Your task to perform on an android device: Open Yahoo.com Image 0: 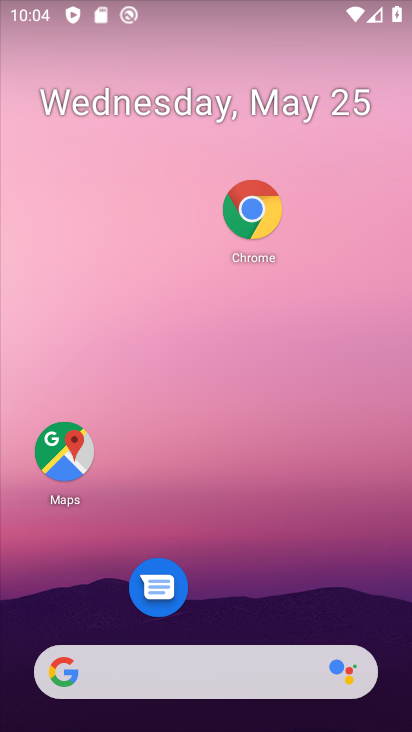
Step 0: click (272, 219)
Your task to perform on an android device: Open Yahoo.com Image 1: 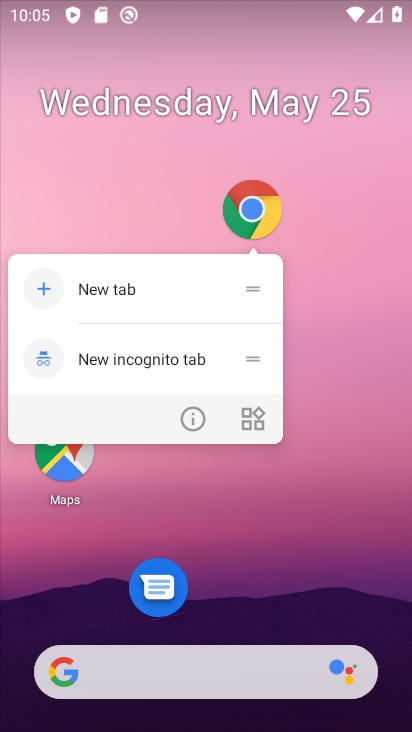
Step 1: click (265, 229)
Your task to perform on an android device: Open Yahoo.com Image 2: 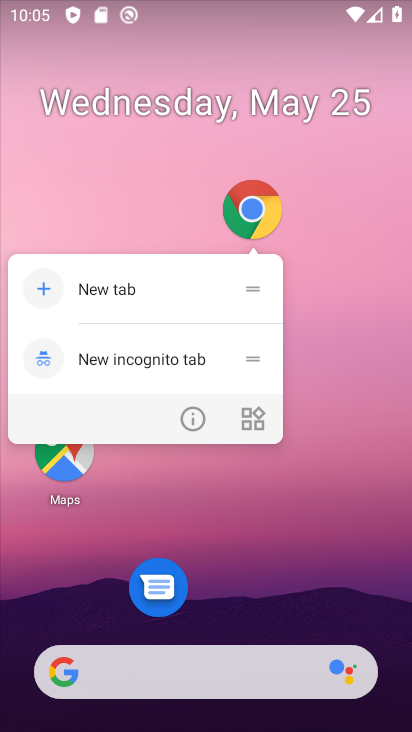
Step 2: click (265, 229)
Your task to perform on an android device: Open Yahoo.com Image 3: 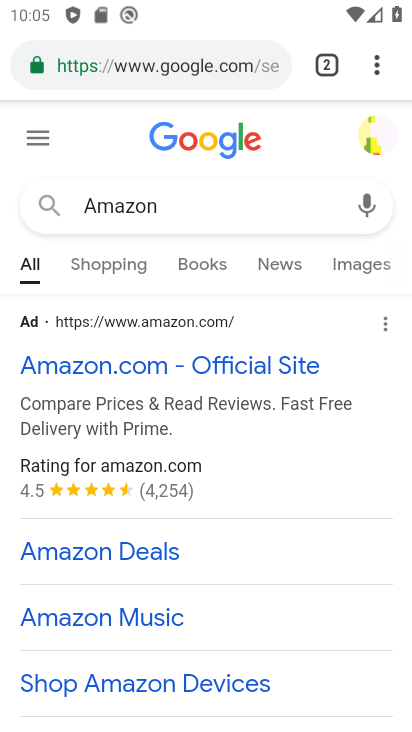
Step 3: click (244, 57)
Your task to perform on an android device: Open Yahoo.com Image 4: 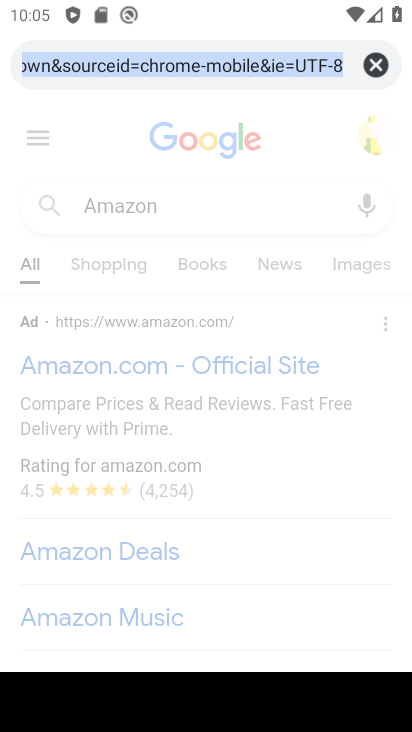
Step 4: type "yahoo.com"
Your task to perform on an android device: Open Yahoo.com Image 5: 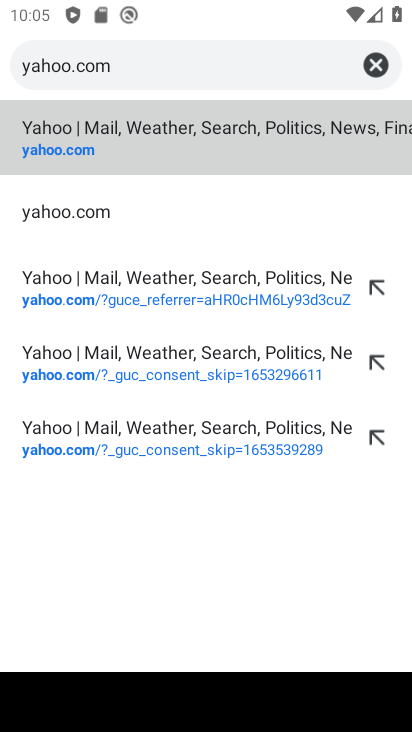
Step 5: click (213, 132)
Your task to perform on an android device: Open Yahoo.com Image 6: 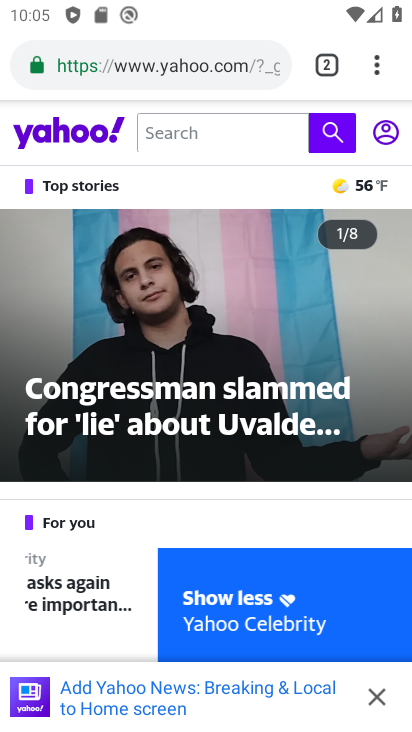
Step 6: task complete